Your task to perform on an android device: toggle show notifications on the lock screen Image 0: 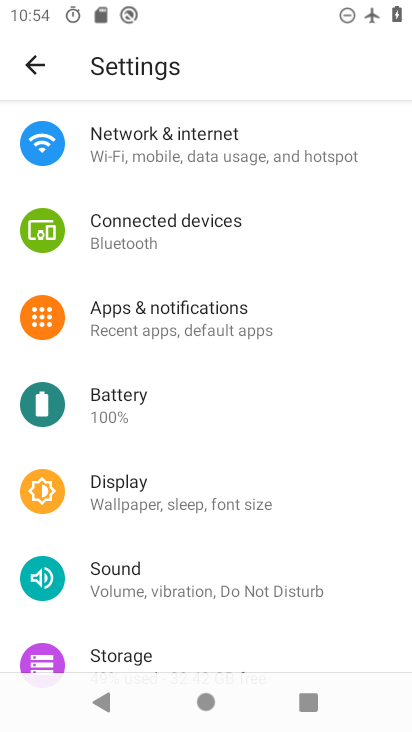
Step 0: click (200, 324)
Your task to perform on an android device: toggle show notifications on the lock screen Image 1: 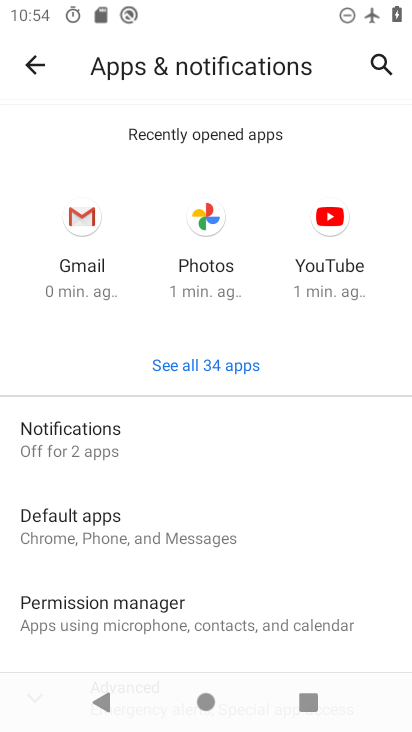
Step 1: click (194, 457)
Your task to perform on an android device: toggle show notifications on the lock screen Image 2: 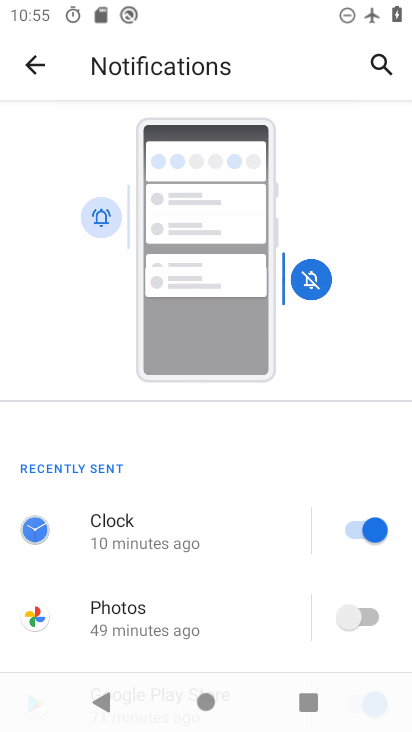
Step 2: drag from (140, 553) to (140, 166)
Your task to perform on an android device: toggle show notifications on the lock screen Image 3: 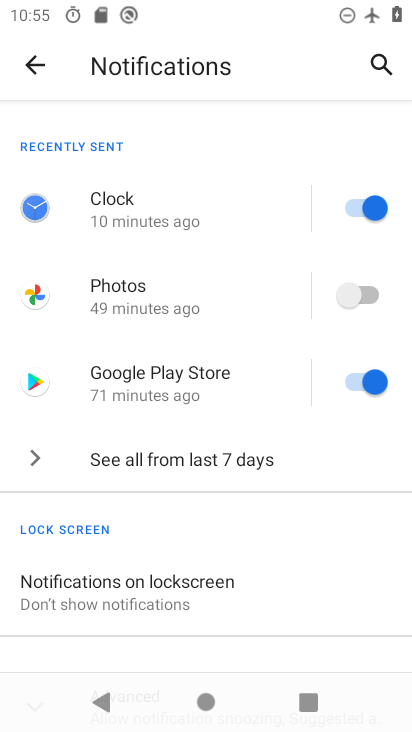
Step 3: click (128, 600)
Your task to perform on an android device: toggle show notifications on the lock screen Image 4: 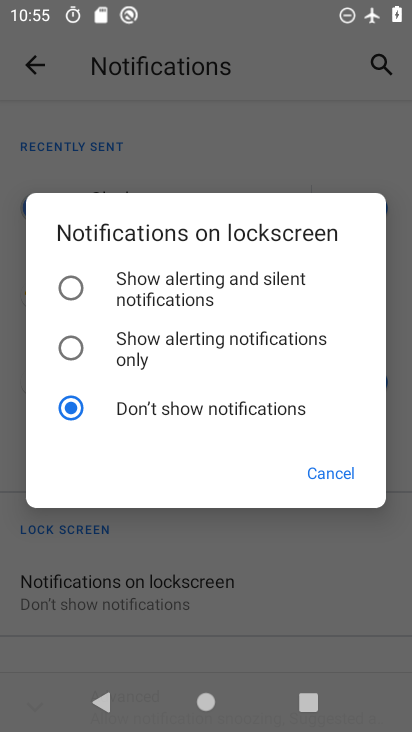
Step 4: click (110, 283)
Your task to perform on an android device: toggle show notifications on the lock screen Image 5: 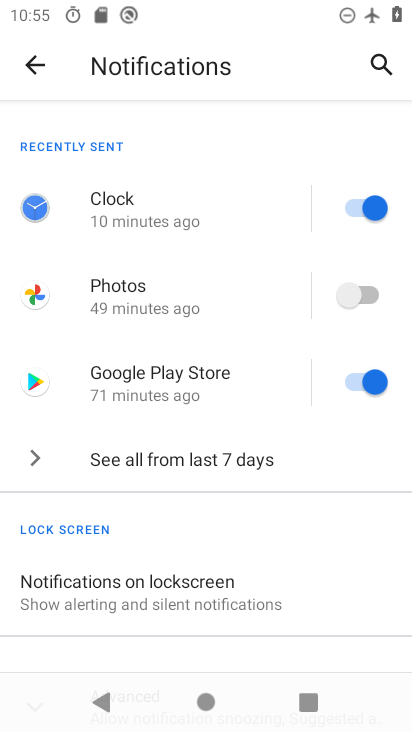
Step 5: task complete